Your task to perform on an android device: turn off location Image 0: 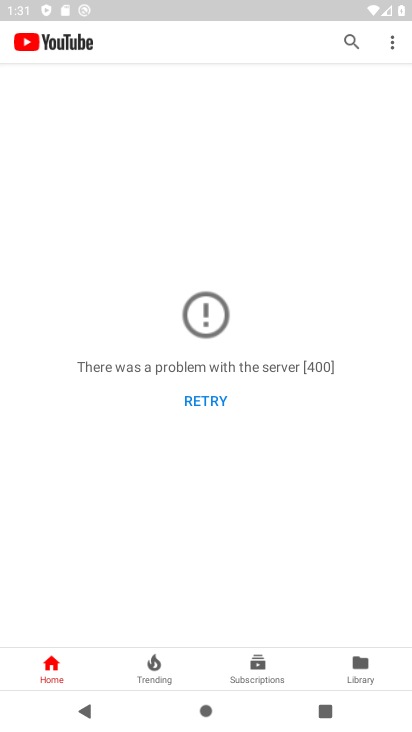
Step 0: press home button
Your task to perform on an android device: turn off location Image 1: 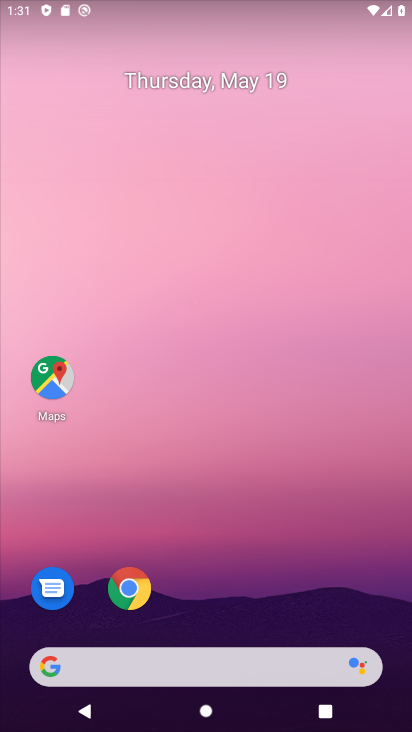
Step 1: drag from (266, 594) to (252, 166)
Your task to perform on an android device: turn off location Image 2: 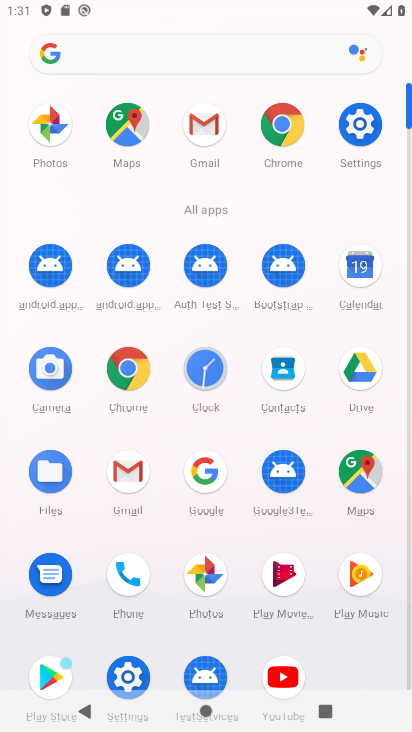
Step 2: click (355, 121)
Your task to perform on an android device: turn off location Image 3: 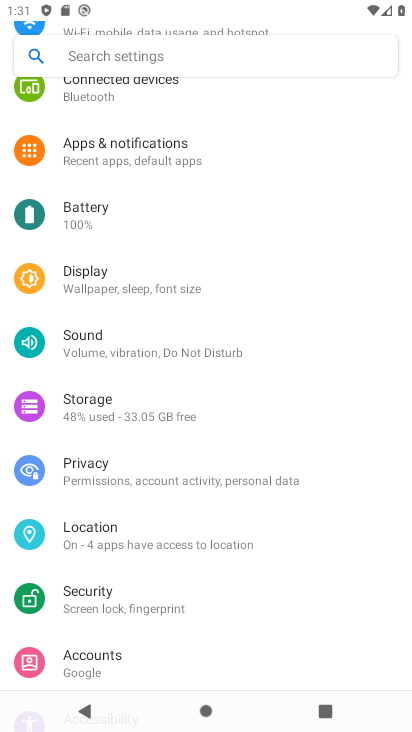
Step 3: drag from (155, 187) to (163, 509)
Your task to perform on an android device: turn off location Image 4: 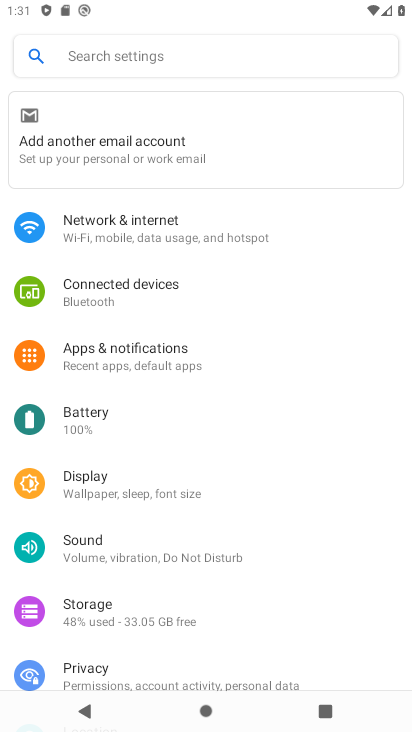
Step 4: drag from (166, 585) to (268, 263)
Your task to perform on an android device: turn off location Image 5: 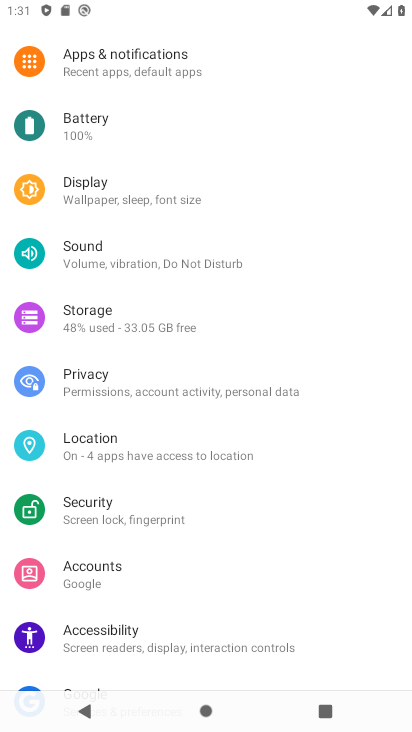
Step 5: drag from (125, 571) to (224, 412)
Your task to perform on an android device: turn off location Image 6: 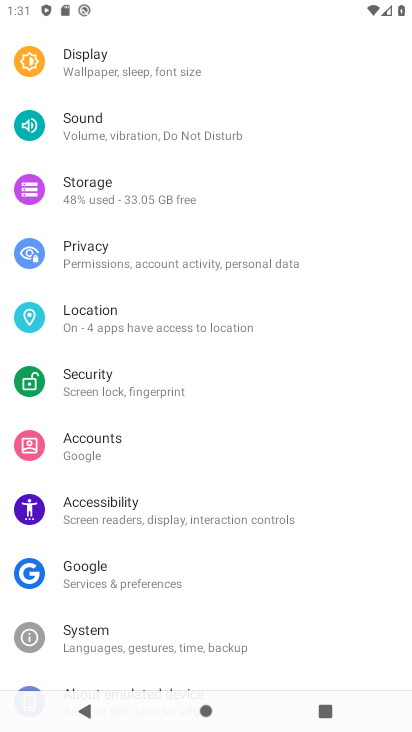
Step 6: click (154, 318)
Your task to perform on an android device: turn off location Image 7: 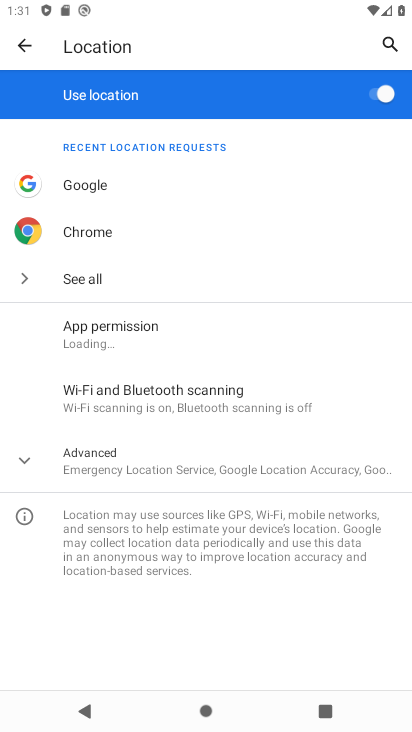
Step 7: click (373, 80)
Your task to perform on an android device: turn off location Image 8: 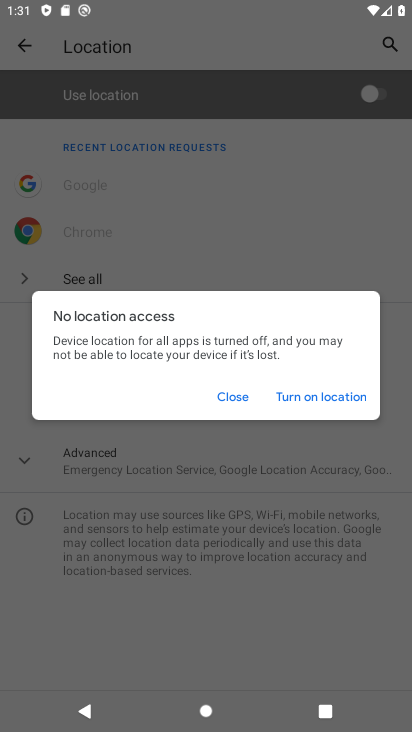
Step 8: task complete